Your task to perform on an android device: read, delete, or share a saved page in the chrome app Image 0: 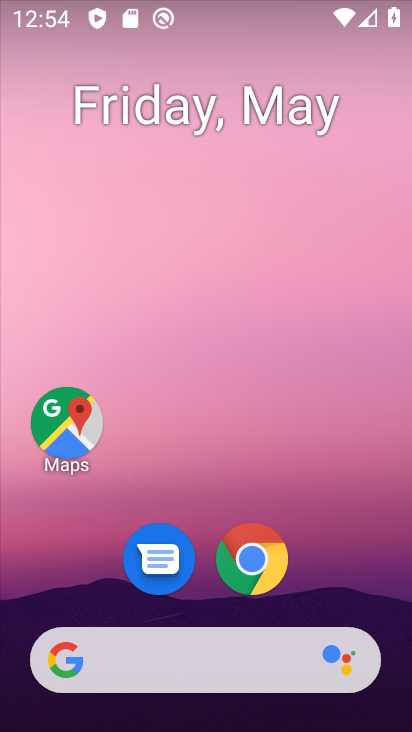
Step 0: click (252, 558)
Your task to perform on an android device: read, delete, or share a saved page in the chrome app Image 1: 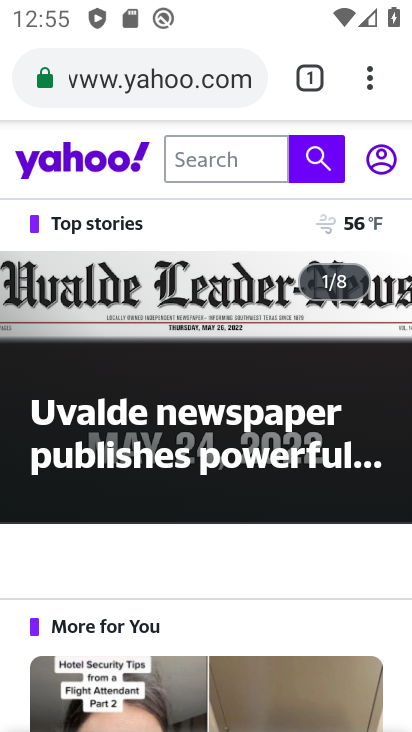
Step 1: task complete